Your task to perform on an android device: turn smart compose on in the gmail app Image 0: 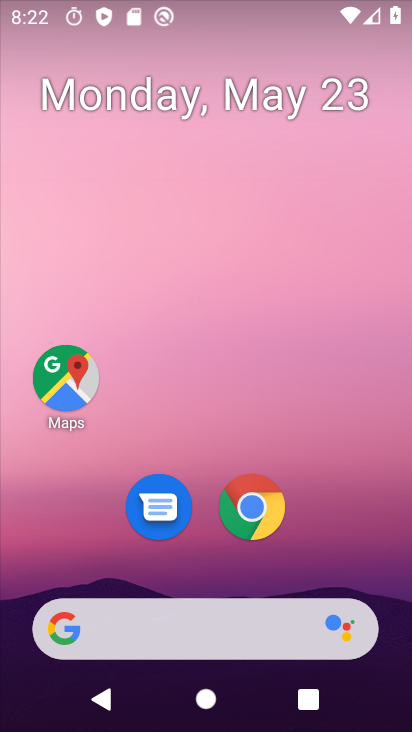
Step 0: drag from (356, 498) to (333, 0)
Your task to perform on an android device: turn smart compose on in the gmail app Image 1: 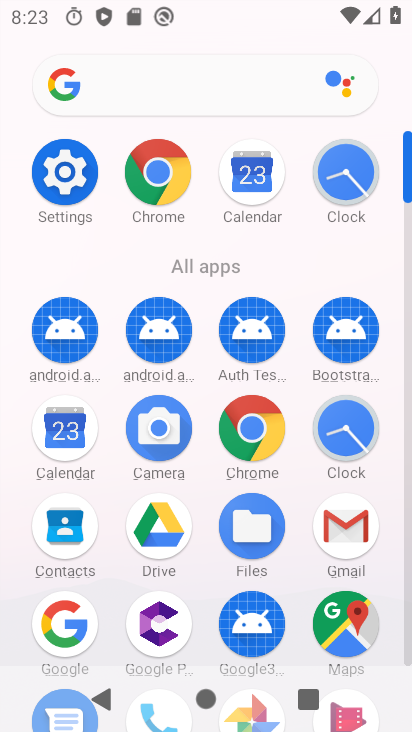
Step 1: click (346, 521)
Your task to perform on an android device: turn smart compose on in the gmail app Image 2: 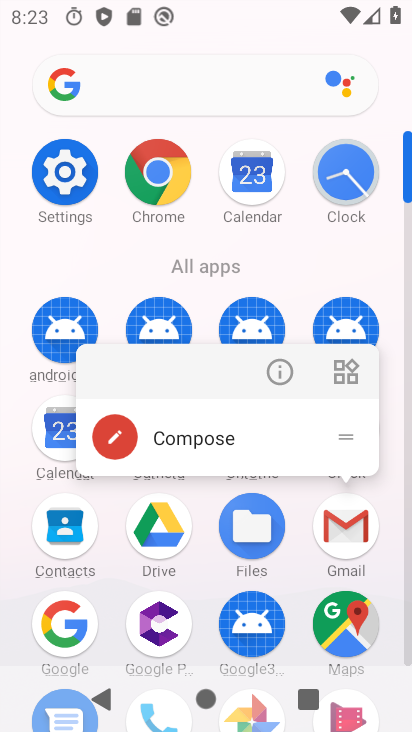
Step 2: click (330, 534)
Your task to perform on an android device: turn smart compose on in the gmail app Image 3: 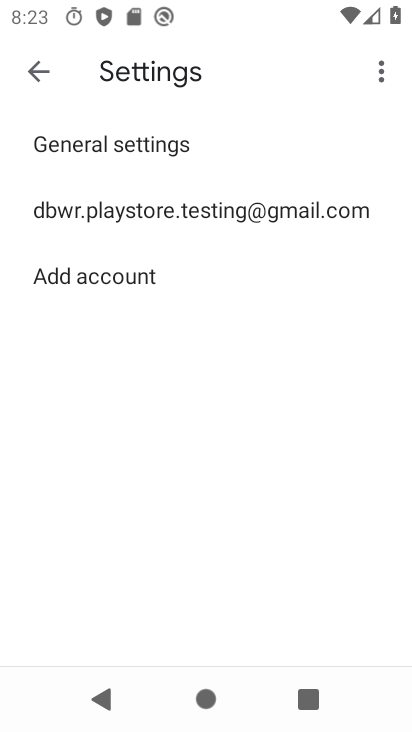
Step 3: click (121, 201)
Your task to perform on an android device: turn smart compose on in the gmail app Image 4: 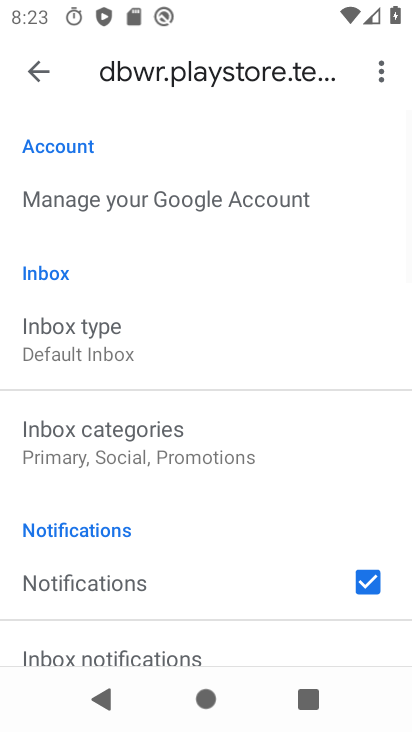
Step 4: task complete